Your task to perform on an android device: toggle show notifications on the lock screen Image 0: 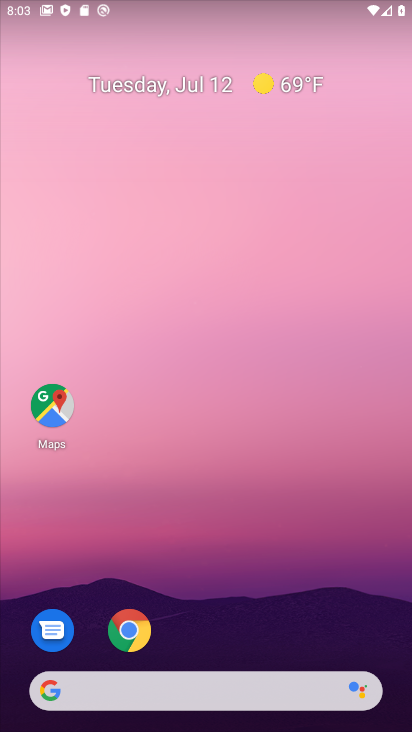
Step 0: drag from (335, 640) to (365, 52)
Your task to perform on an android device: toggle show notifications on the lock screen Image 1: 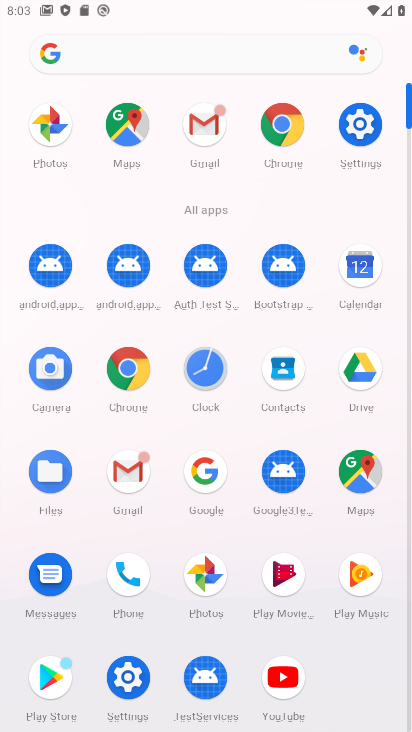
Step 1: click (357, 132)
Your task to perform on an android device: toggle show notifications on the lock screen Image 2: 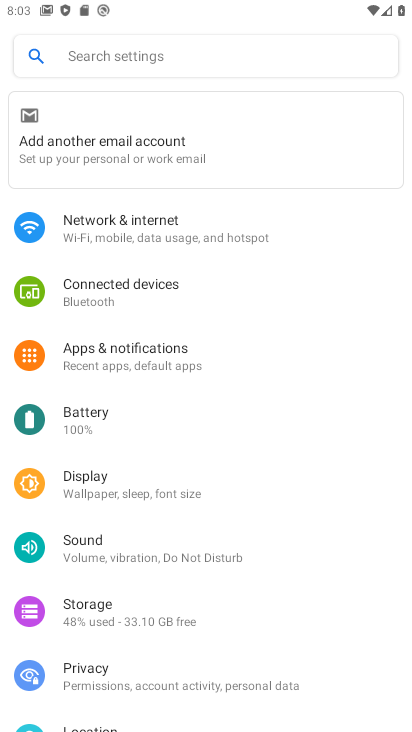
Step 2: click (138, 369)
Your task to perform on an android device: toggle show notifications on the lock screen Image 3: 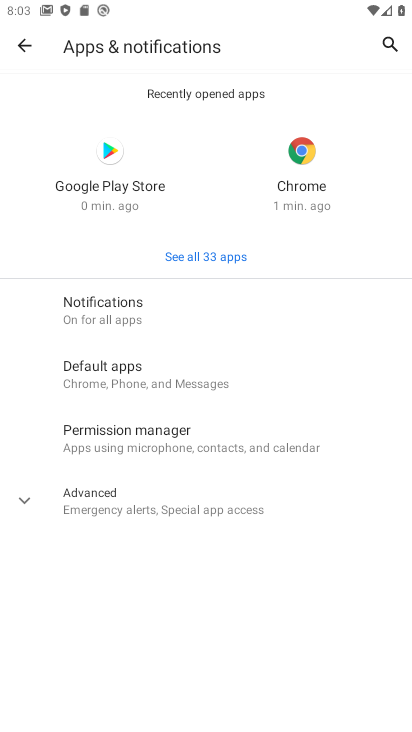
Step 3: click (123, 312)
Your task to perform on an android device: toggle show notifications on the lock screen Image 4: 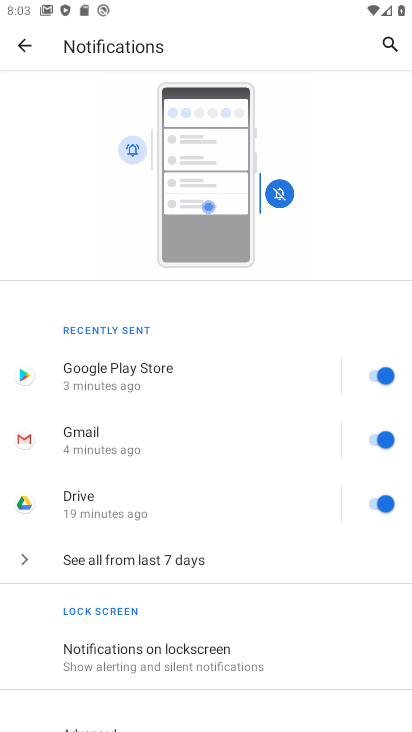
Step 4: drag from (151, 538) to (215, 144)
Your task to perform on an android device: toggle show notifications on the lock screen Image 5: 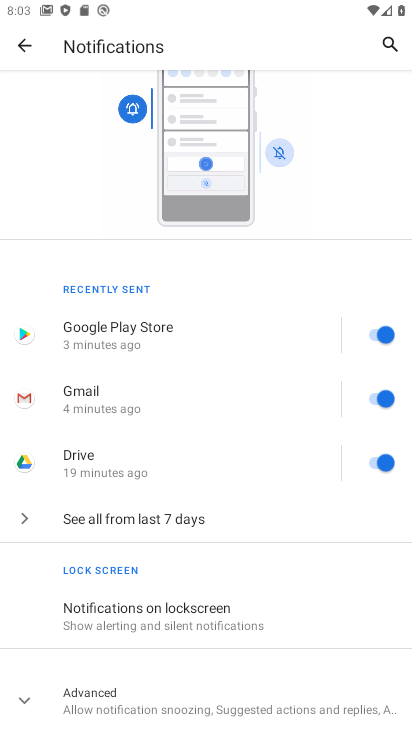
Step 5: click (153, 616)
Your task to perform on an android device: toggle show notifications on the lock screen Image 6: 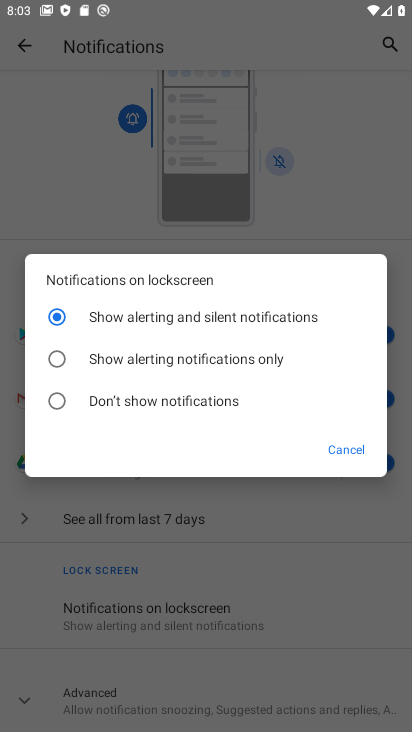
Step 6: click (85, 357)
Your task to perform on an android device: toggle show notifications on the lock screen Image 7: 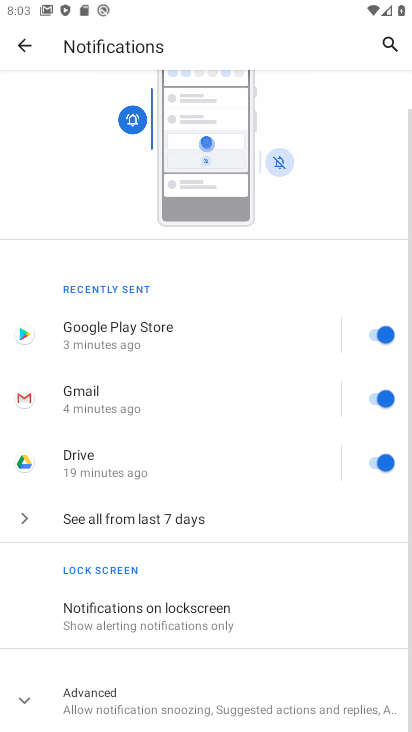
Step 7: task complete